Your task to perform on an android device: Open Google Chrome Image 0: 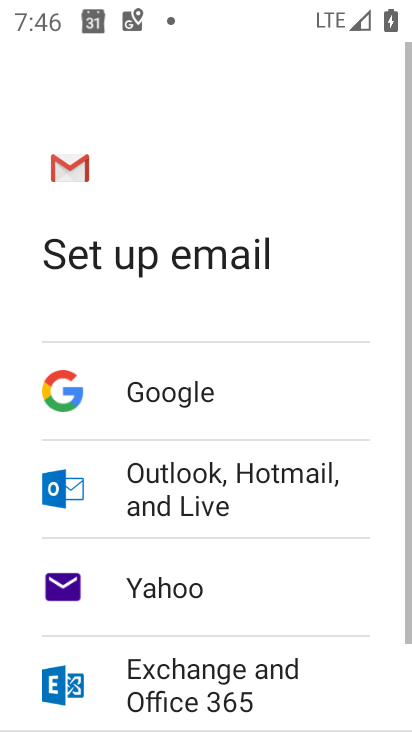
Step 0: press home button
Your task to perform on an android device: Open Google Chrome Image 1: 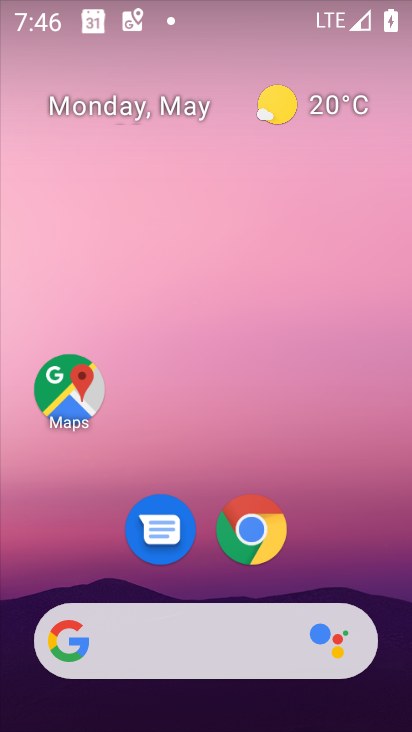
Step 1: click (268, 545)
Your task to perform on an android device: Open Google Chrome Image 2: 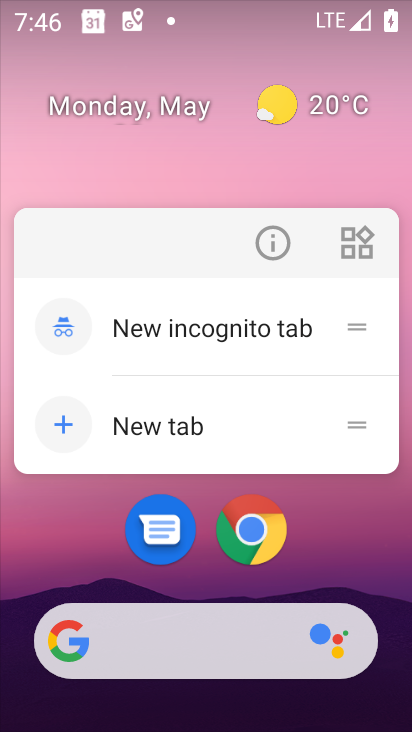
Step 2: click (237, 527)
Your task to perform on an android device: Open Google Chrome Image 3: 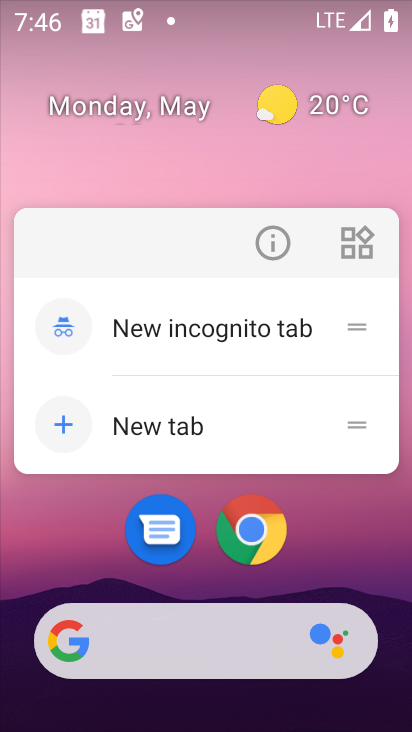
Step 3: click (231, 542)
Your task to perform on an android device: Open Google Chrome Image 4: 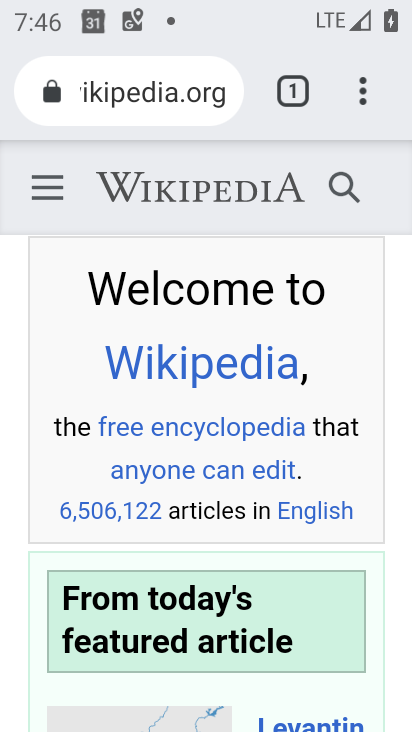
Step 4: task complete